Your task to perform on an android device: Open Google Chrome and open the bookmarks view Image 0: 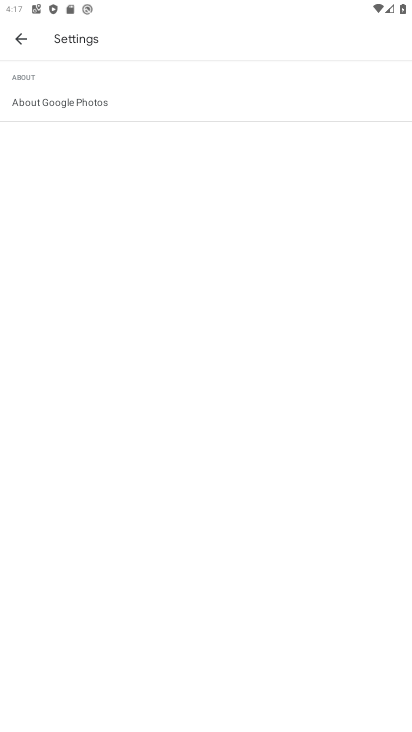
Step 0: press home button
Your task to perform on an android device: Open Google Chrome and open the bookmarks view Image 1: 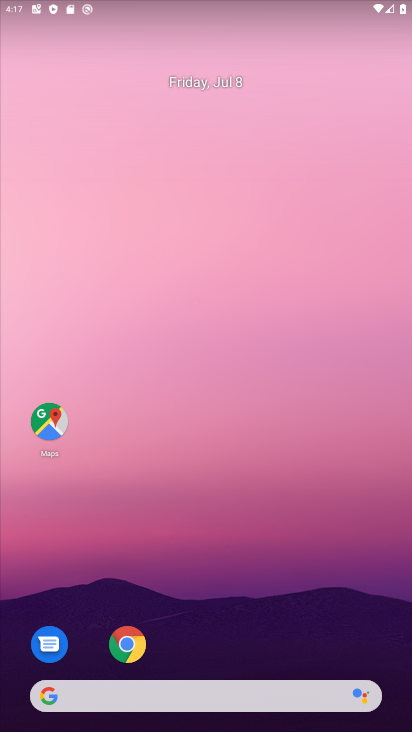
Step 1: click (47, 418)
Your task to perform on an android device: Open Google Chrome and open the bookmarks view Image 2: 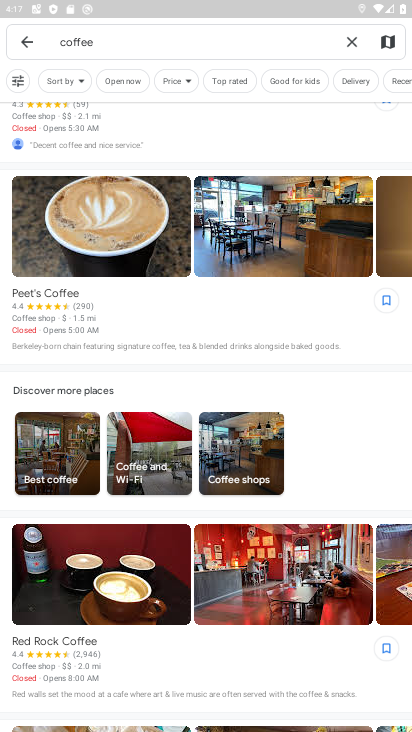
Step 2: press home button
Your task to perform on an android device: Open Google Chrome and open the bookmarks view Image 3: 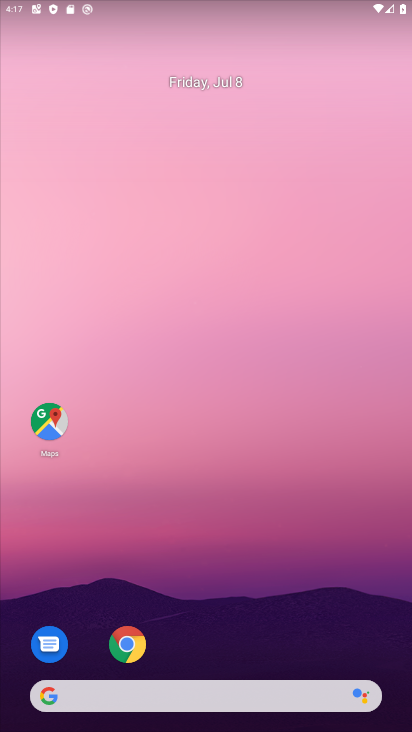
Step 3: click (128, 640)
Your task to perform on an android device: Open Google Chrome and open the bookmarks view Image 4: 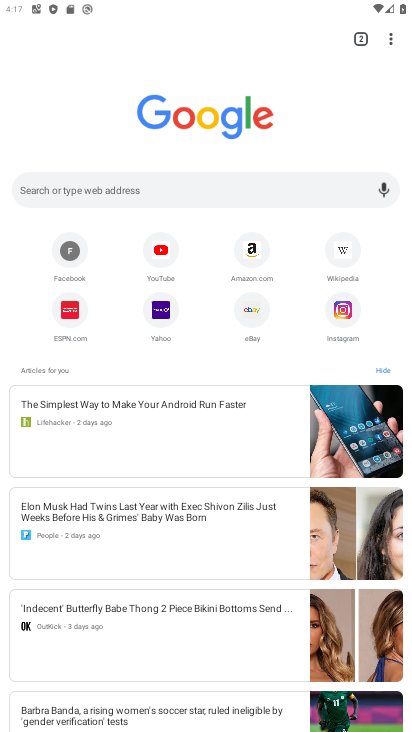
Step 4: click (389, 33)
Your task to perform on an android device: Open Google Chrome and open the bookmarks view Image 5: 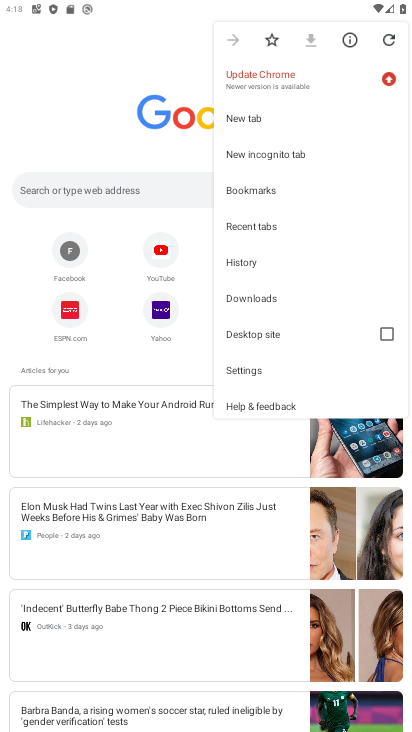
Step 5: click (275, 186)
Your task to perform on an android device: Open Google Chrome and open the bookmarks view Image 6: 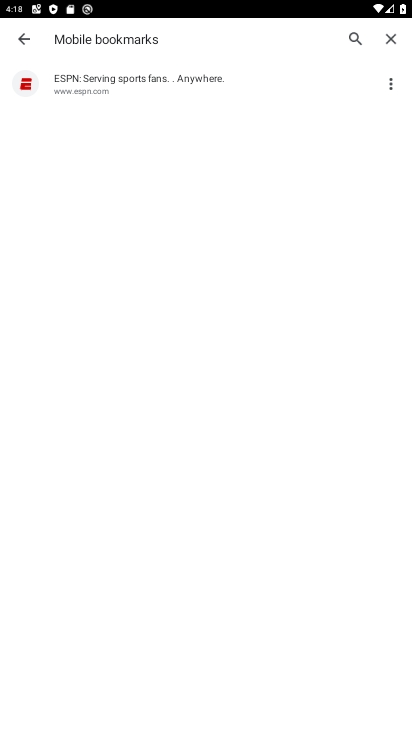
Step 6: task complete